Your task to perform on an android device: Open calendar and show me the third week of next month Image 0: 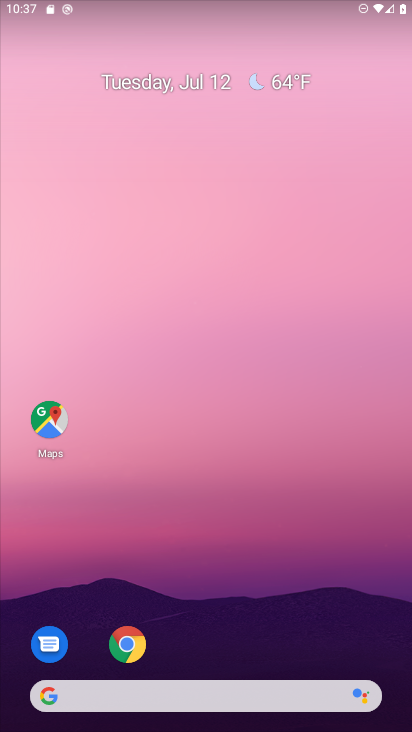
Step 0: drag from (247, 615) to (306, 59)
Your task to perform on an android device: Open calendar and show me the third week of next month Image 1: 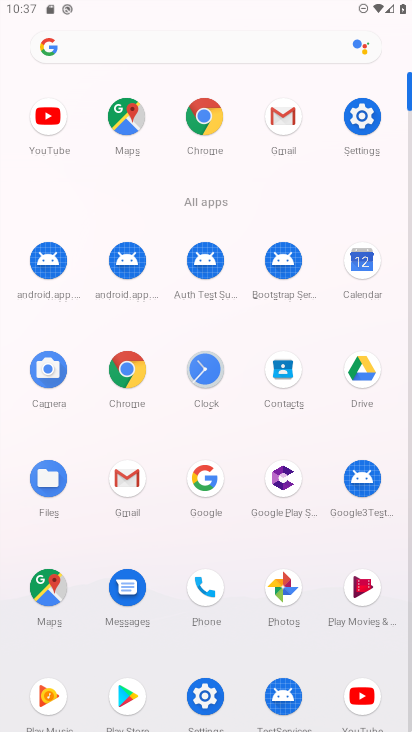
Step 1: click (356, 276)
Your task to perform on an android device: Open calendar and show me the third week of next month Image 2: 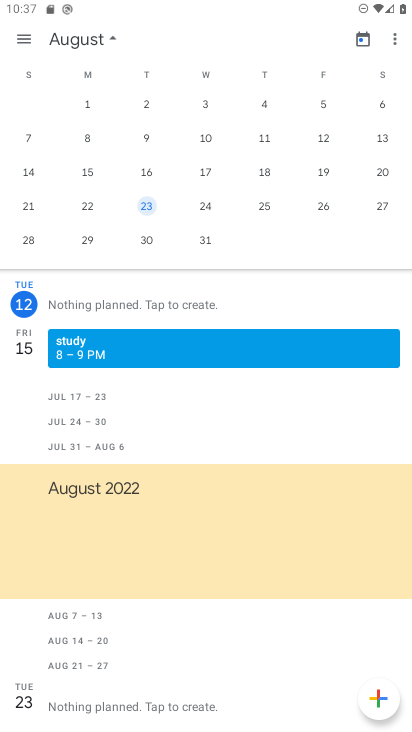
Step 2: task complete